Your task to perform on an android device: change the clock display to show seconds Image 0: 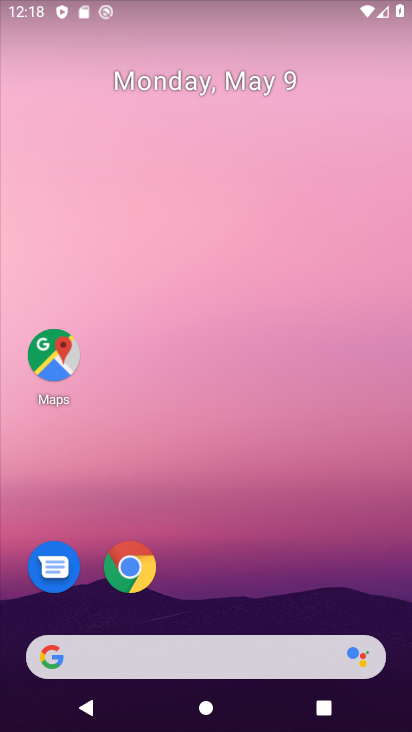
Step 0: drag from (241, 599) to (322, 0)
Your task to perform on an android device: change the clock display to show seconds Image 1: 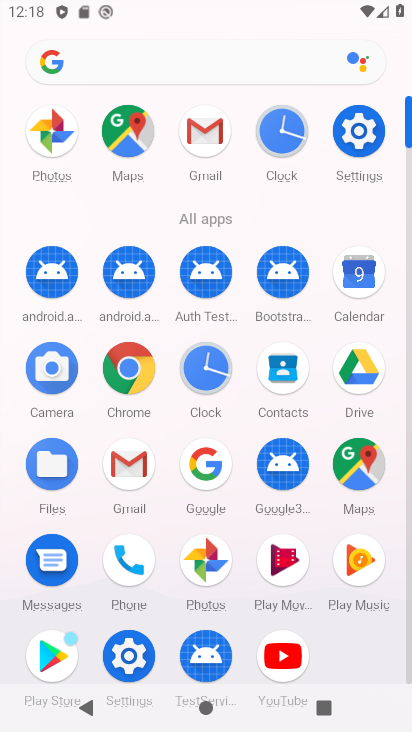
Step 1: click (214, 387)
Your task to perform on an android device: change the clock display to show seconds Image 2: 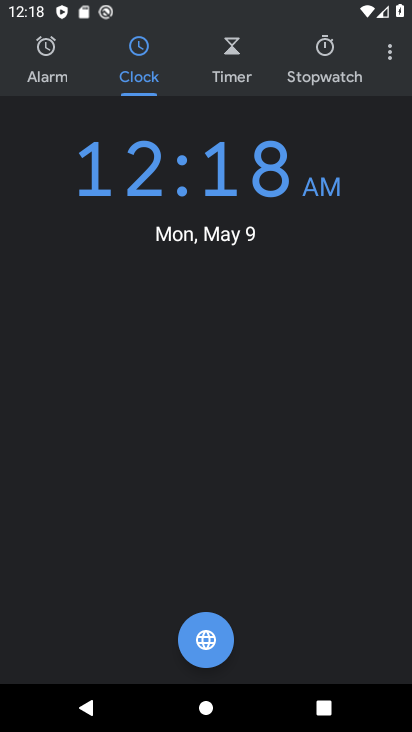
Step 2: click (384, 65)
Your task to perform on an android device: change the clock display to show seconds Image 3: 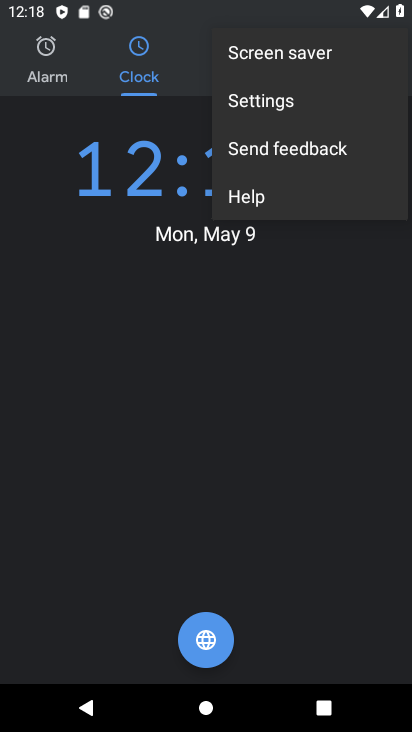
Step 3: click (255, 92)
Your task to perform on an android device: change the clock display to show seconds Image 4: 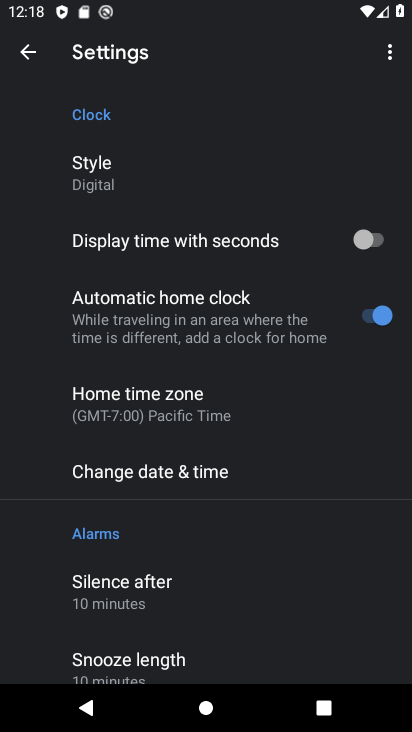
Step 4: click (128, 172)
Your task to perform on an android device: change the clock display to show seconds Image 5: 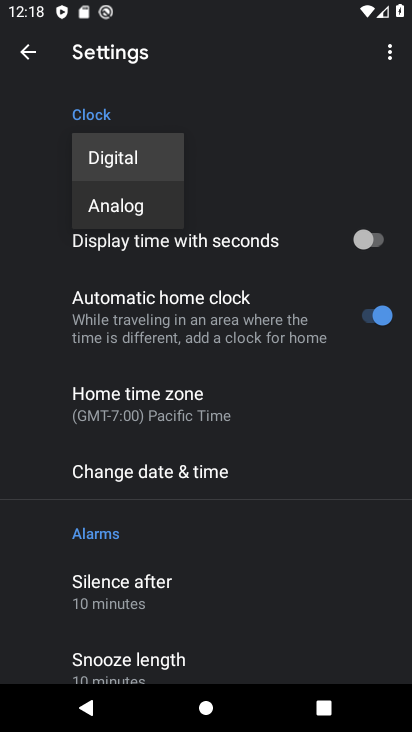
Step 5: click (157, 222)
Your task to perform on an android device: change the clock display to show seconds Image 6: 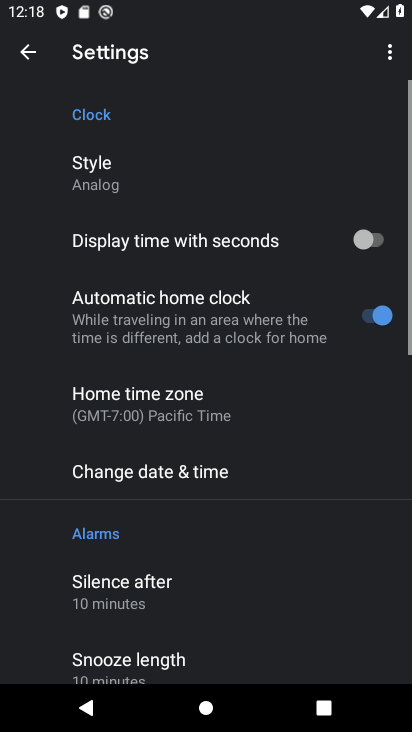
Step 6: click (390, 247)
Your task to perform on an android device: change the clock display to show seconds Image 7: 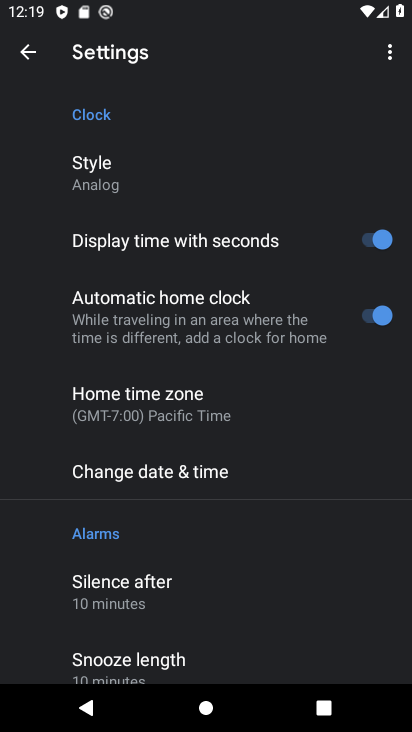
Step 7: task complete